Your task to perform on an android device: add a label to a message in the gmail app Image 0: 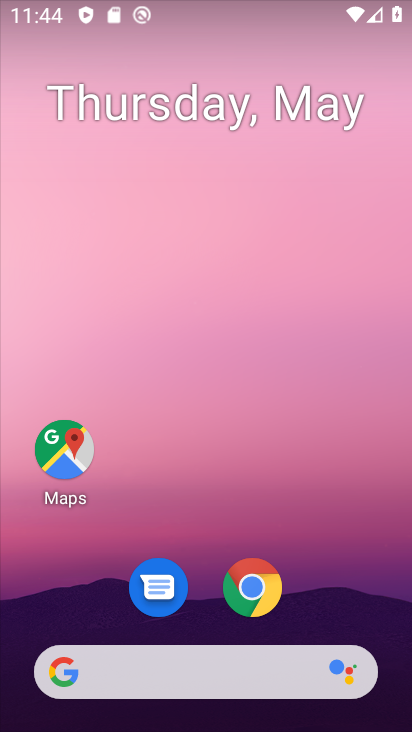
Step 0: drag from (200, 563) to (308, 183)
Your task to perform on an android device: add a label to a message in the gmail app Image 1: 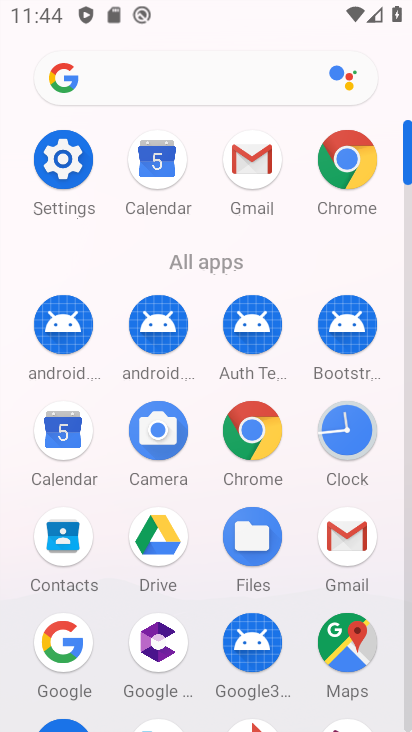
Step 1: click (252, 164)
Your task to perform on an android device: add a label to a message in the gmail app Image 2: 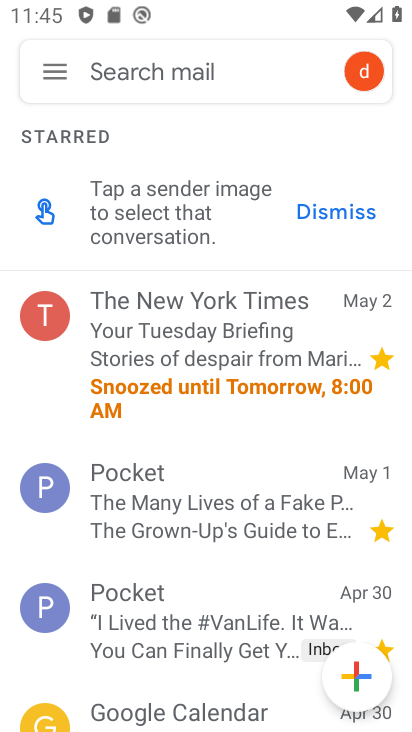
Step 2: click (199, 488)
Your task to perform on an android device: add a label to a message in the gmail app Image 3: 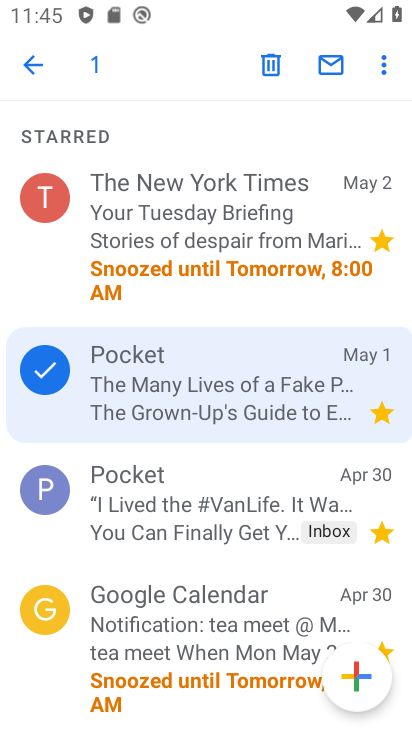
Step 3: click (374, 58)
Your task to perform on an android device: add a label to a message in the gmail app Image 4: 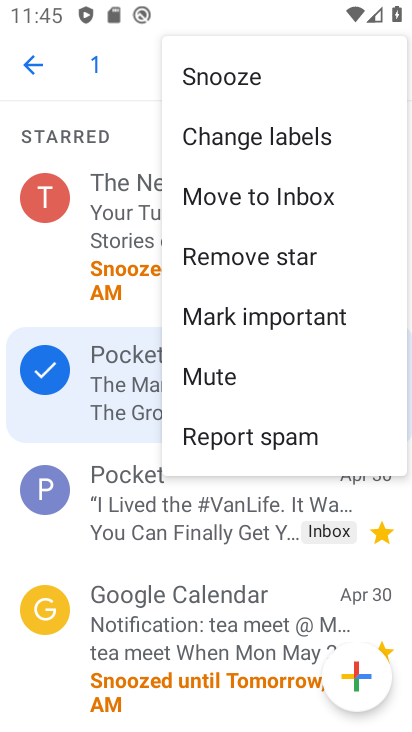
Step 4: click (247, 144)
Your task to perform on an android device: add a label to a message in the gmail app Image 5: 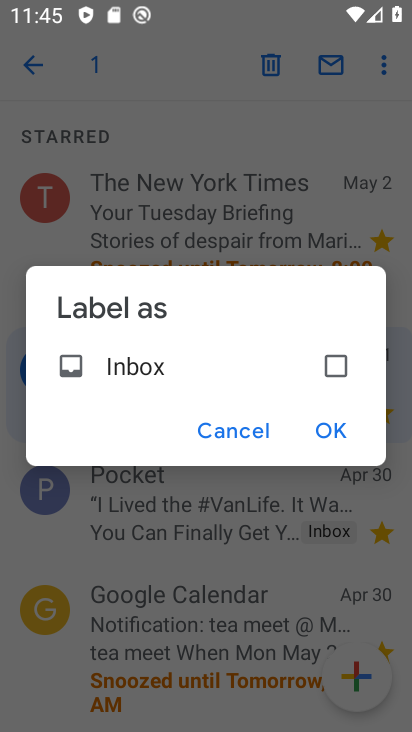
Step 5: click (330, 365)
Your task to perform on an android device: add a label to a message in the gmail app Image 6: 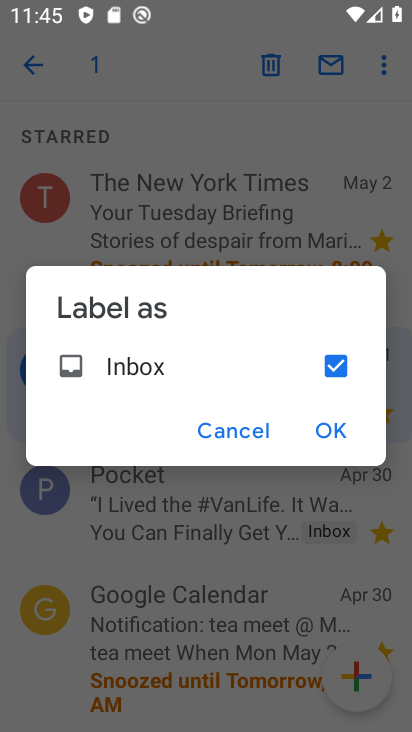
Step 6: click (325, 430)
Your task to perform on an android device: add a label to a message in the gmail app Image 7: 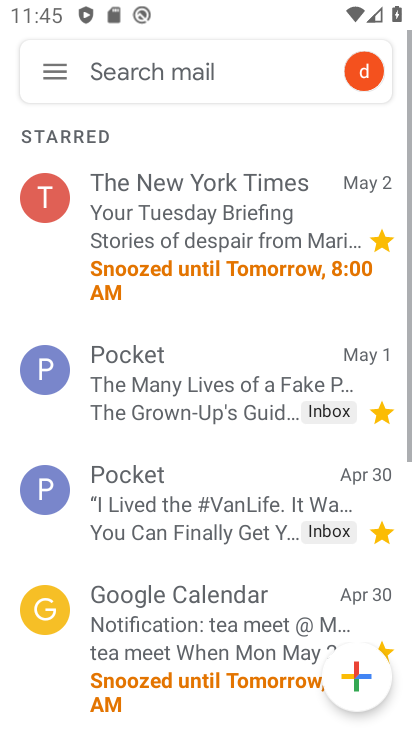
Step 7: task complete